Your task to perform on an android device: Search for Italian restaurants on Maps Image 0: 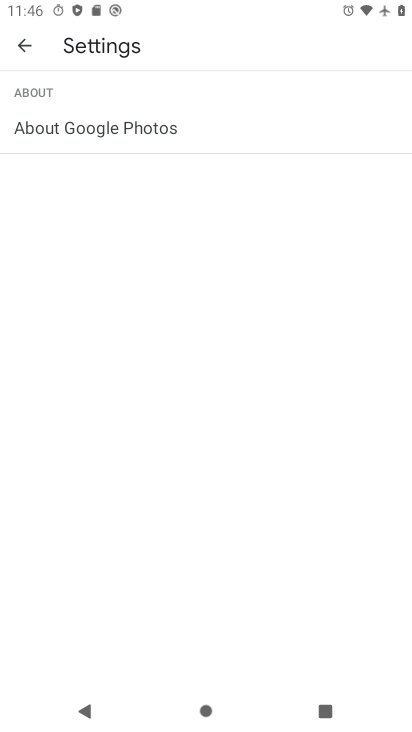
Step 0: press home button
Your task to perform on an android device: Search for Italian restaurants on Maps Image 1: 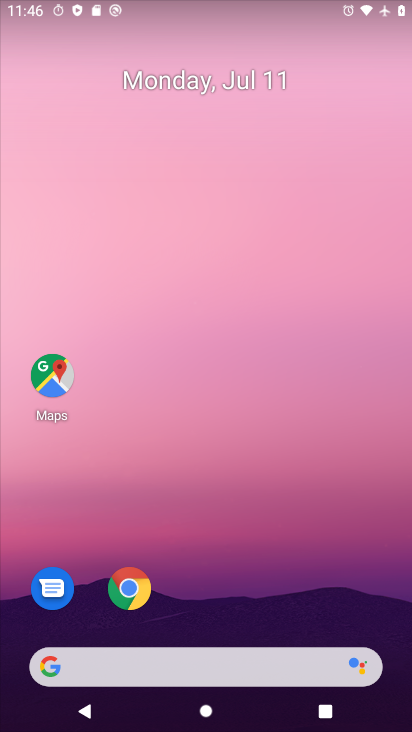
Step 1: click (60, 373)
Your task to perform on an android device: Search for Italian restaurants on Maps Image 2: 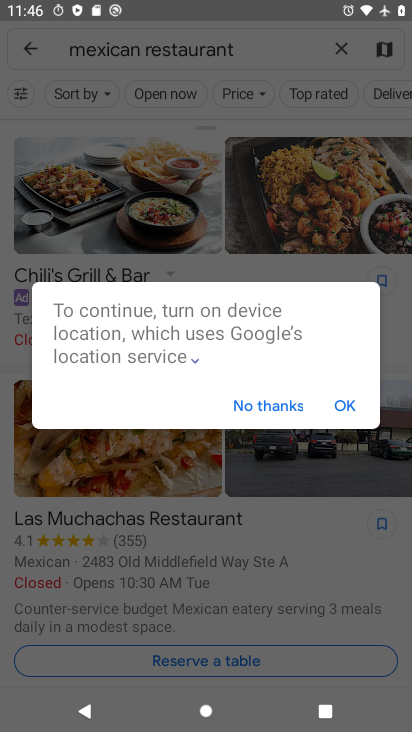
Step 2: click (341, 413)
Your task to perform on an android device: Search for Italian restaurants on Maps Image 3: 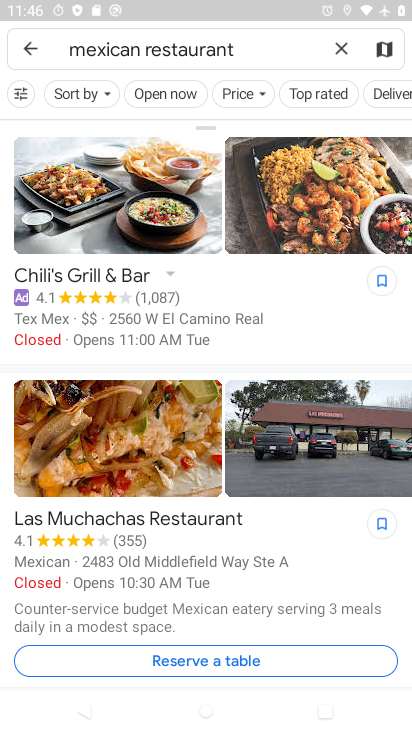
Step 3: click (341, 46)
Your task to perform on an android device: Search for Italian restaurants on Maps Image 4: 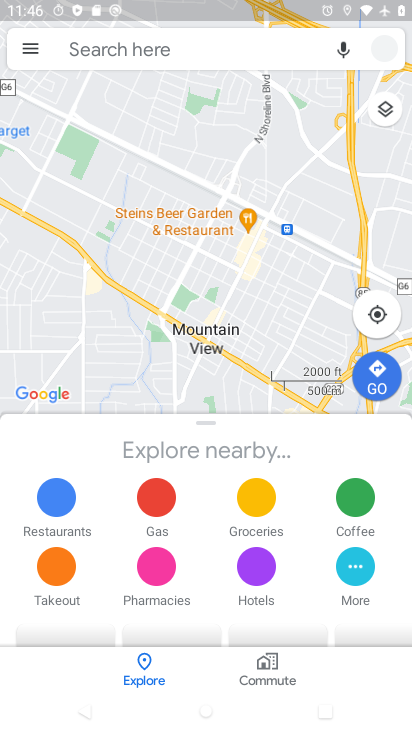
Step 4: click (159, 38)
Your task to perform on an android device: Search for Italian restaurants on Maps Image 5: 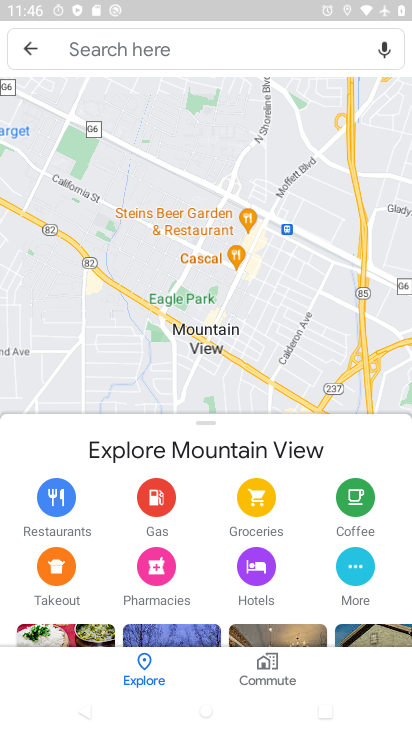
Step 5: click (138, 51)
Your task to perform on an android device: Search for Italian restaurants on Maps Image 6: 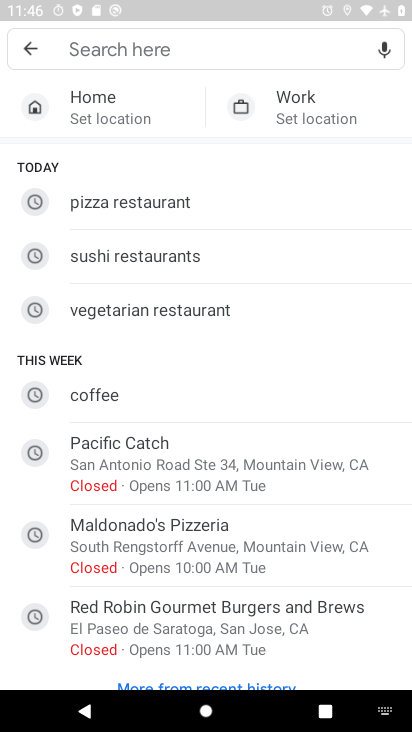
Step 6: type "Italian restaurants "
Your task to perform on an android device: Search for Italian restaurants on Maps Image 7: 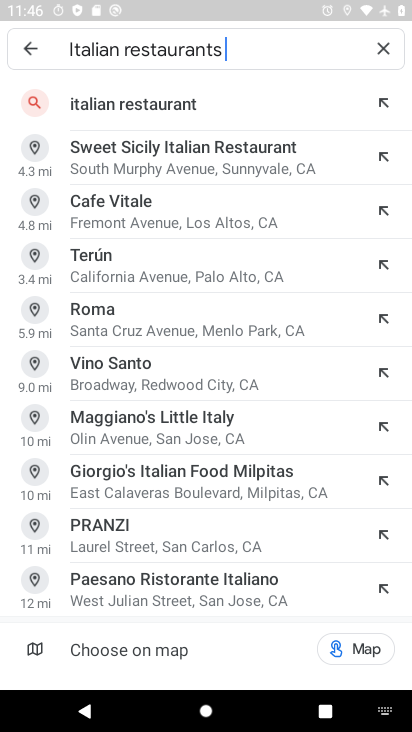
Step 7: click (177, 102)
Your task to perform on an android device: Search for Italian restaurants on Maps Image 8: 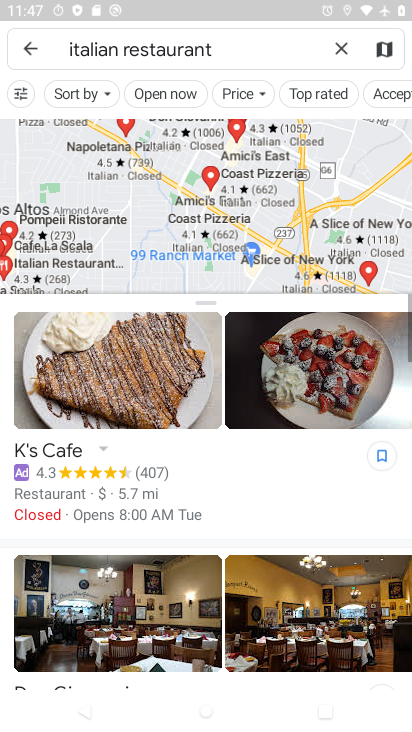
Step 8: task complete